Your task to perform on an android device: Open the calendar and show me this week's events? Image 0: 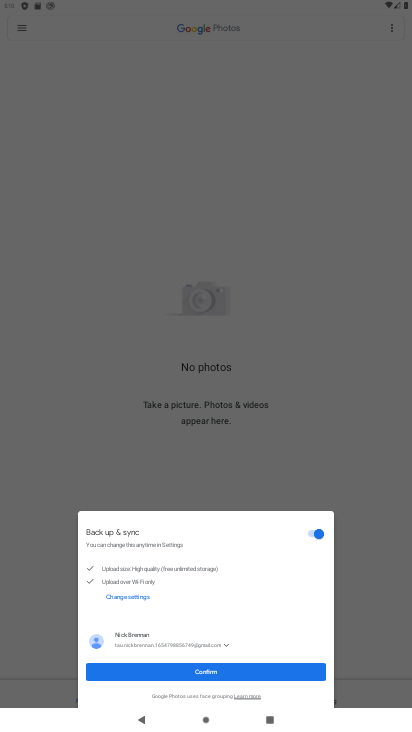
Step 0: press home button
Your task to perform on an android device: Open the calendar and show me this week's events? Image 1: 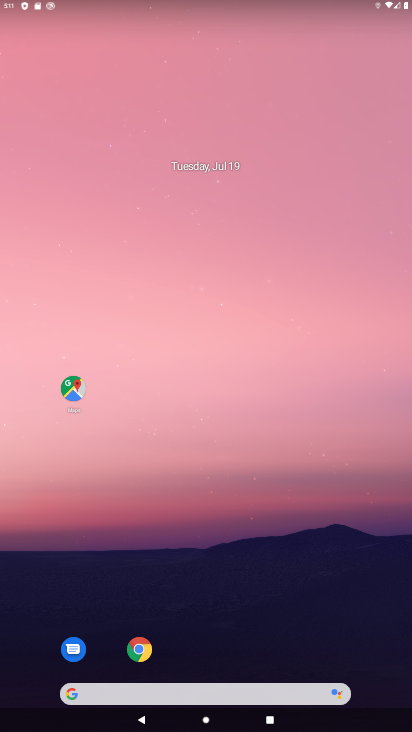
Step 1: drag from (291, 569) to (96, 0)
Your task to perform on an android device: Open the calendar and show me this week's events? Image 2: 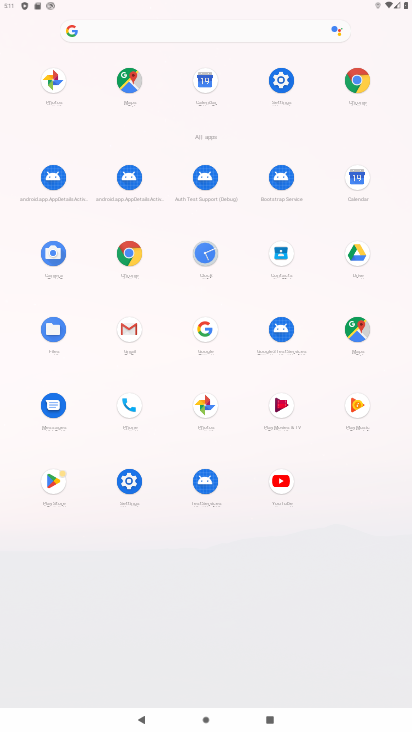
Step 2: click (353, 175)
Your task to perform on an android device: Open the calendar and show me this week's events? Image 3: 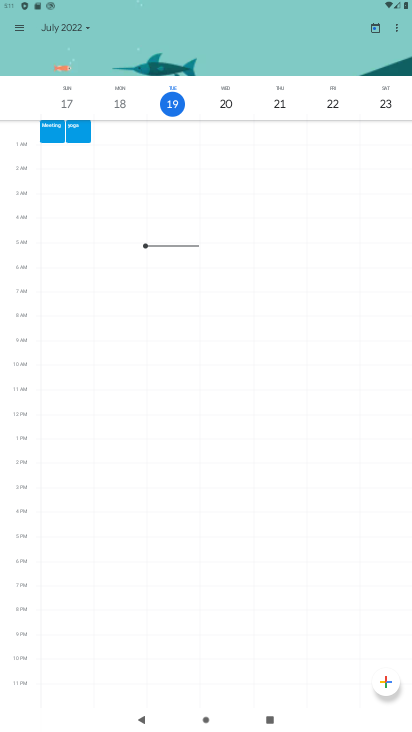
Step 3: task complete